Your task to perform on an android device: turn off data saver in the chrome app Image 0: 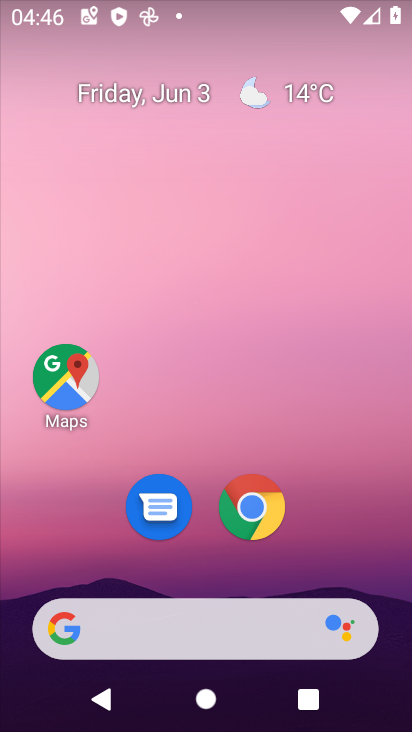
Step 0: click (251, 501)
Your task to perform on an android device: turn off data saver in the chrome app Image 1: 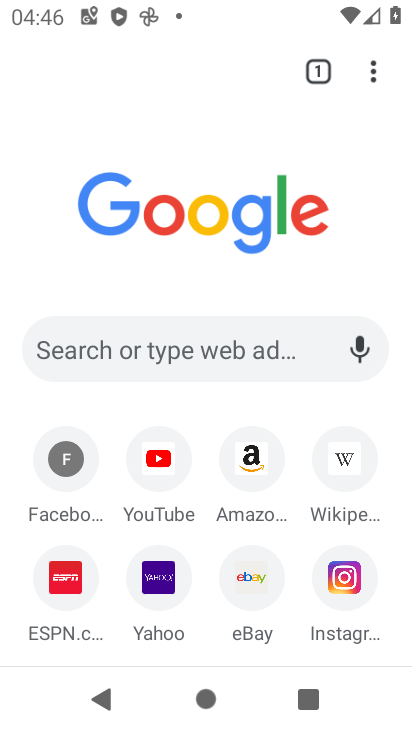
Step 1: drag from (376, 75) to (229, 510)
Your task to perform on an android device: turn off data saver in the chrome app Image 2: 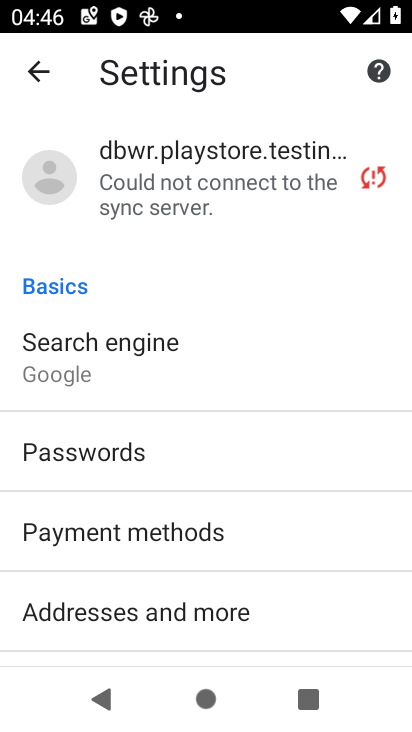
Step 2: drag from (281, 633) to (201, 51)
Your task to perform on an android device: turn off data saver in the chrome app Image 3: 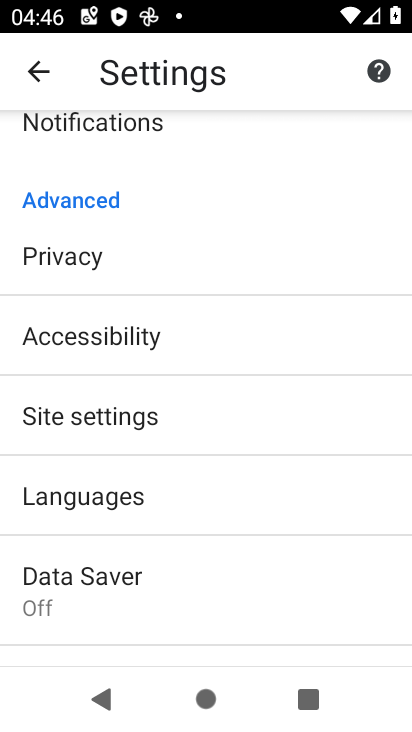
Step 3: click (145, 578)
Your task to perform on an android device: turn off data saver in the chrome app Image 4: 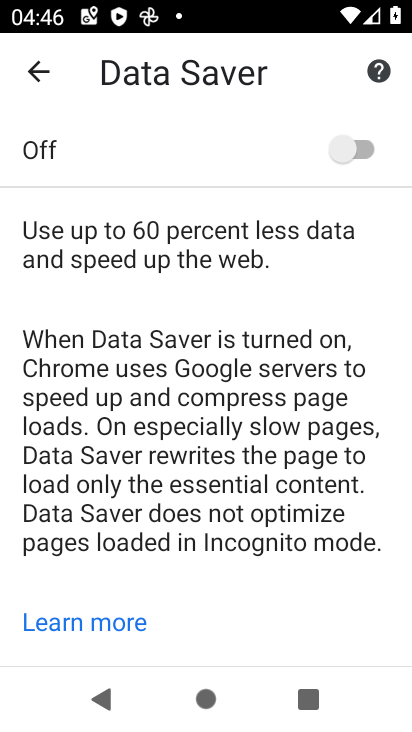
Step 4: task complete